Your task to perform on an android device: Is it going to rain tomorrow? Image 0: 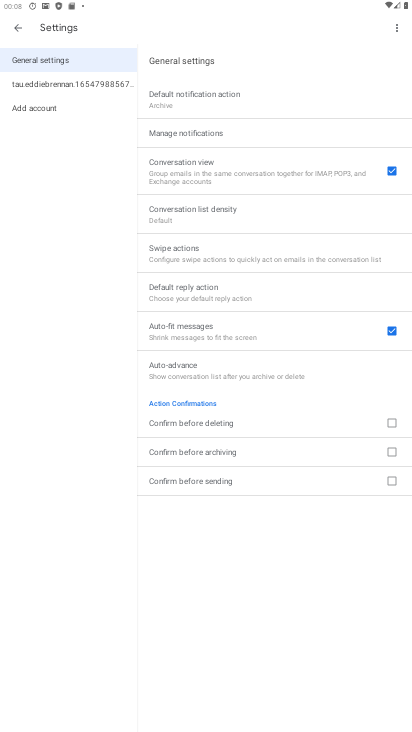
Step 0: press home button
Your task to perform on an android device: Is it going to rain tomorrow? Image 1: 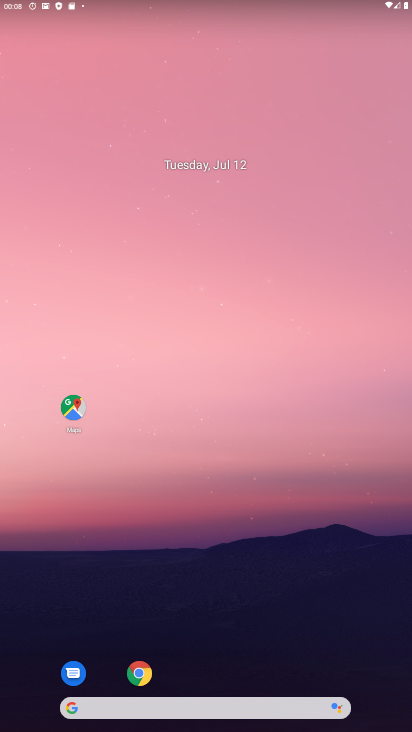
Step 1: click (160, 700)
Your task to perform on an android device: Is it going to rain tomorrow? Image 2: 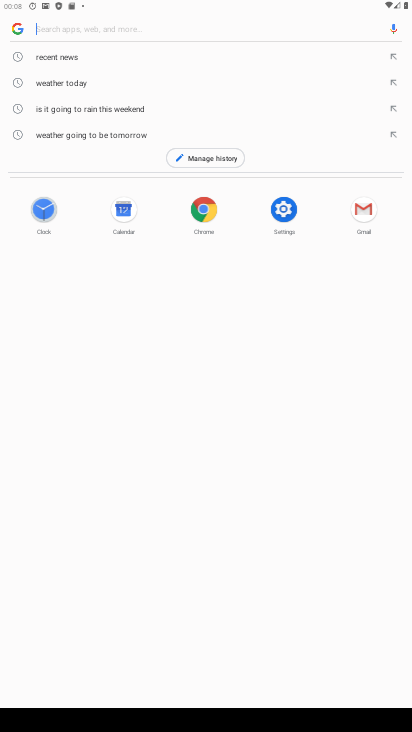
Step 2: type "Is it going to rain tomorrow?"
Your task to perform on an android device: Is it going to rain tomorrow? Image 3: 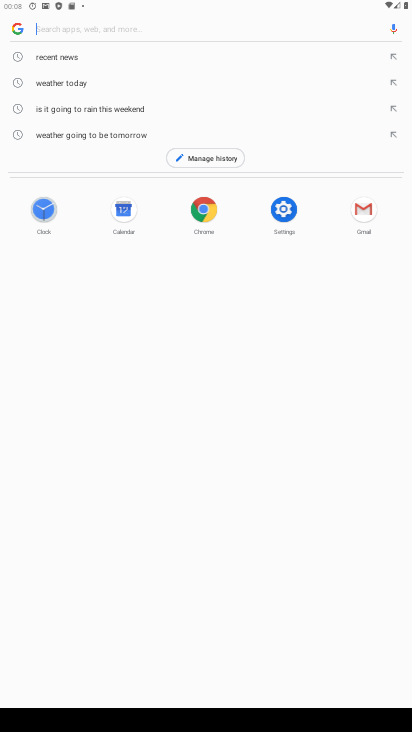
Step 3: click (61, 27)
Your task to perform on an android device: Is it going to rain tomorrow? Image 4: 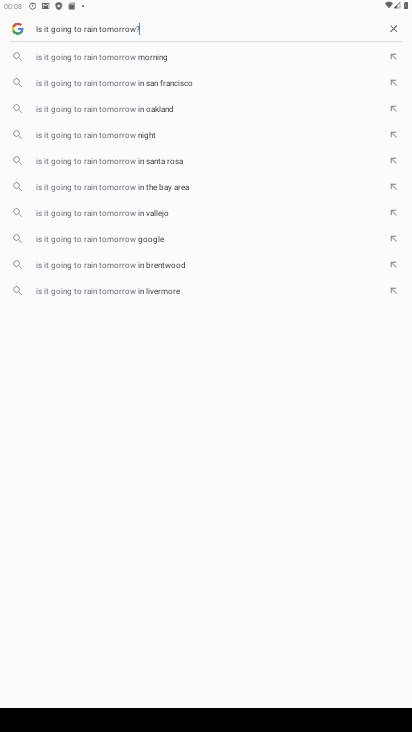
Step 4: click (52, 29)
Your task to perform on an android device: Is it going to rain tomorrow? Image 5: 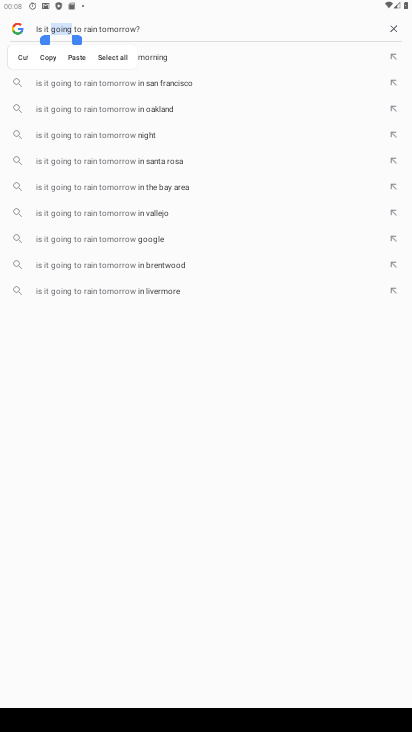
Step 5: press enter
Your task to perform on an android device: Is it going to rain tomorrow? Image 6: 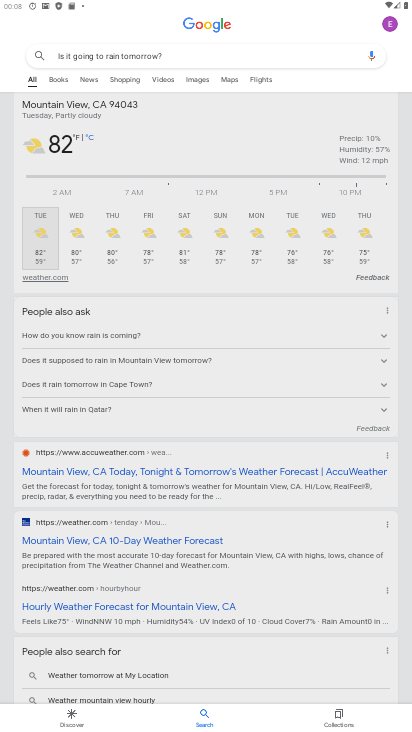
Step 6: task complete